Your task to perform on an android device: Open the stopwatch Image 0: 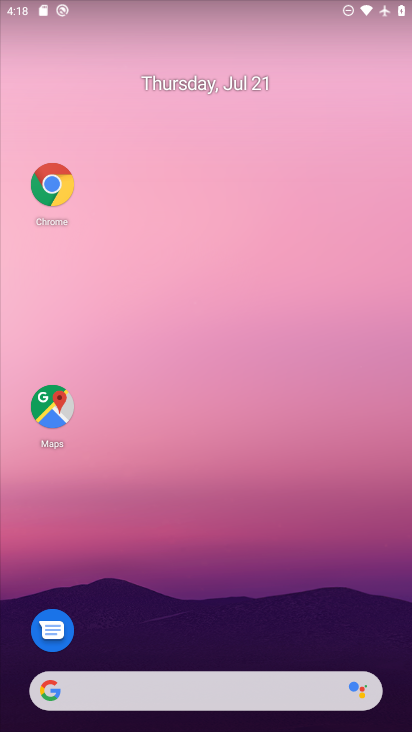
Step 0: drag from (212, 689) to (181, 6)
Your task to perform on an android device: Open the stopwatch Image 1: 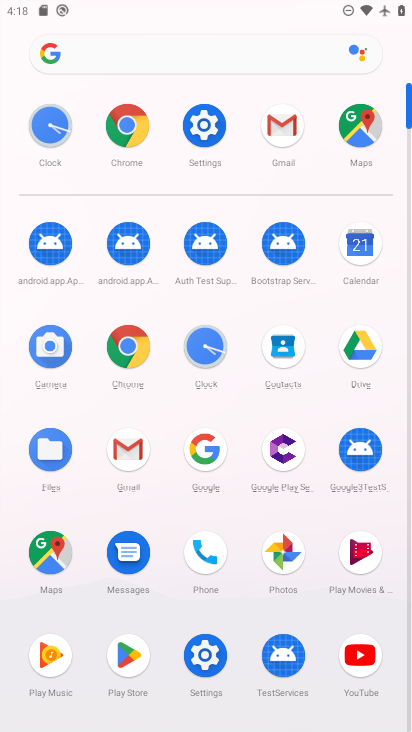
Step 1: click (221, 339)
Your task to perform on an android device: Open the stopwatch Image 2: 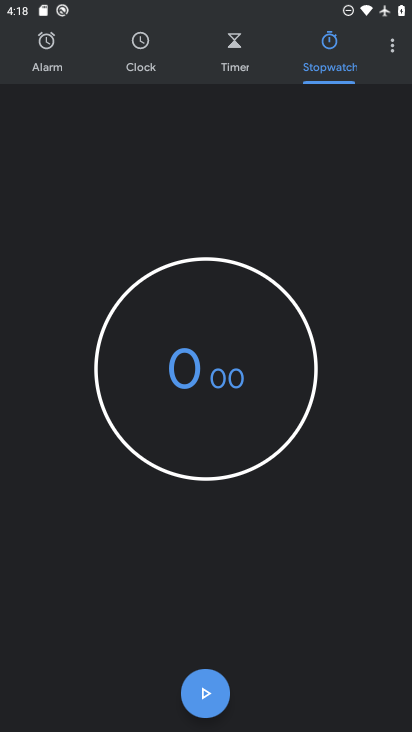
Step 2: task complete